Your task to perform on an android device: turn pop-ups on in chrome Image 0: 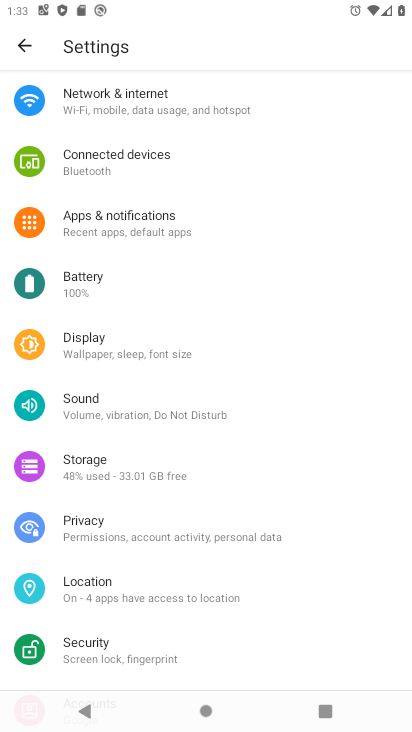
Step 0: press home button
Your task to perform on an android device: turn pop-ups on in chrome Image 1: 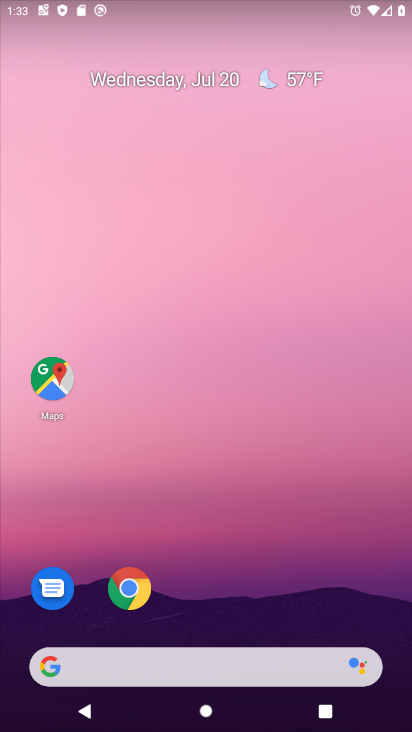
Step 1: click (117, 585)
Your task to perform on an android device: turn pop-ups on in chrome Image 2: 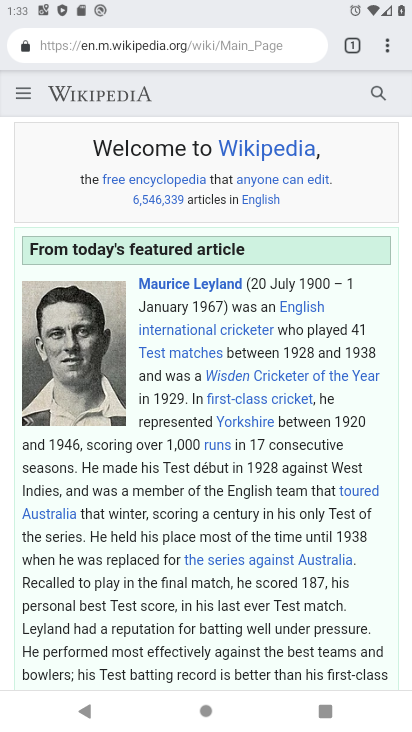
Step 2: click (383, 44)
Your task to perform on an android device: turn pop-ups on in chrome Image 3: 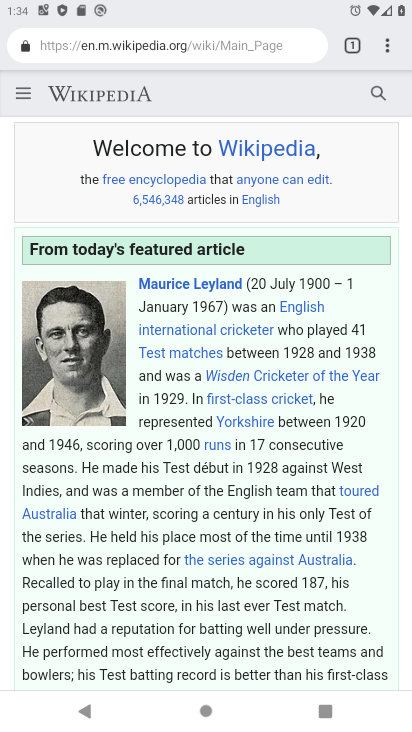
Step 3: click (391, 46)
Your task to perform on an android device: turn pop-ups on in chrome Image 4: 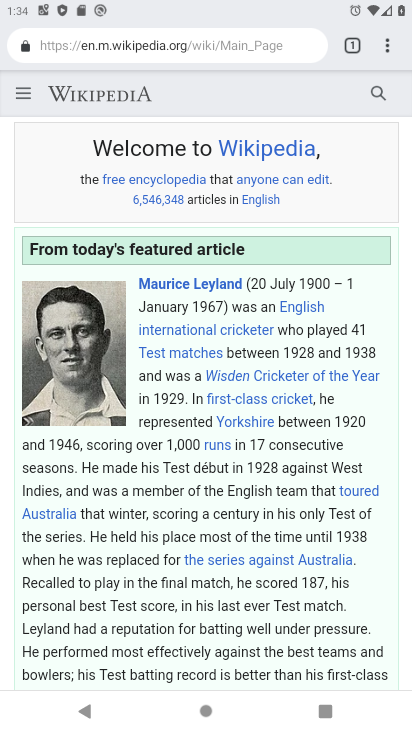
Step 4: click (387, 42)
Your task to perform on an android device: turn pop-ups on in chrome Image 5: 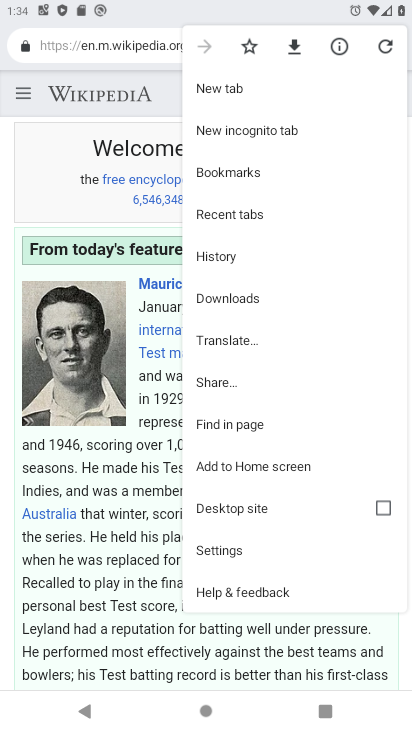
Step 5: click (243, 555)
Your task to perform on an android device: turn pop-ups on in chrome Image 6: 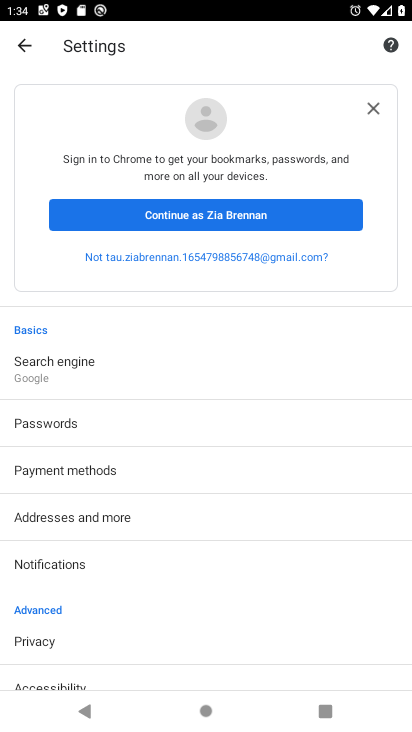
Step 6: drag from (15, 540) to (191, 82)
Your task to perform on an android device: turn pop-ups on in chrome Image 7: 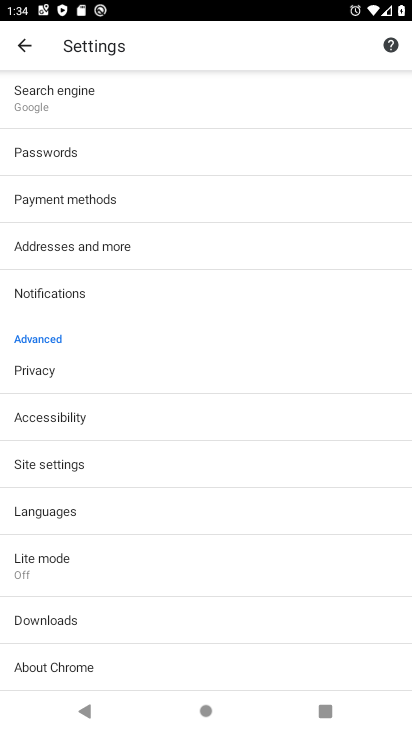
Step 7: click (37, 460)
Your task to perform on an android device: turn pop-ups on in chrome Image 8: 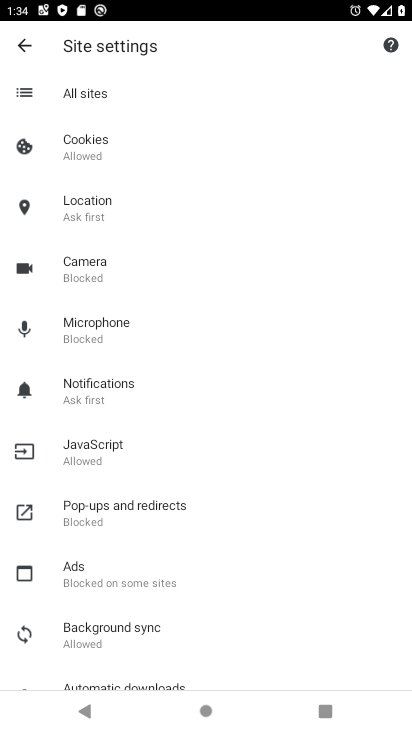
Step 8: click (127, 501)
Your task to perform on an android device: turn pop-ups on in chrome Image 9: 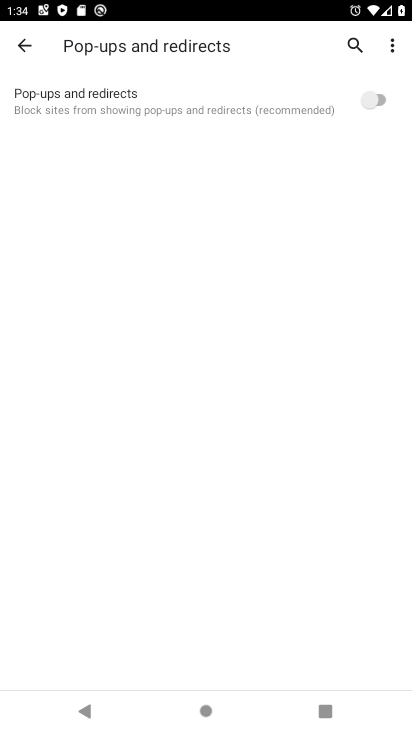
Step 9: click (377, 106)
Your task to perform on an android device: turn pop-ups on in chrome Image 10: 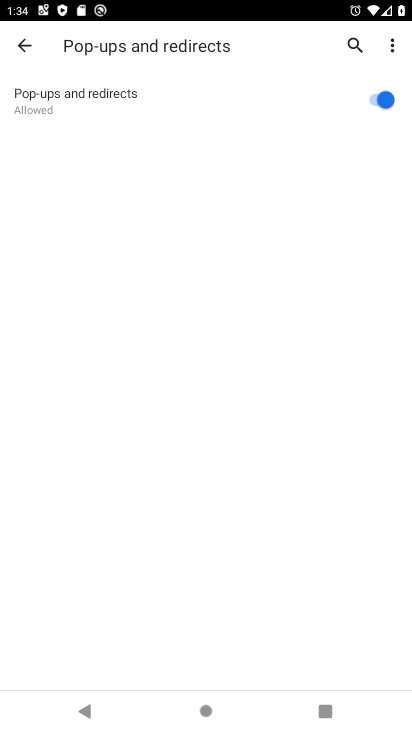
Step 10: task complete